Your task to perform on an android device: turn on translation in the chrome app Image 0: 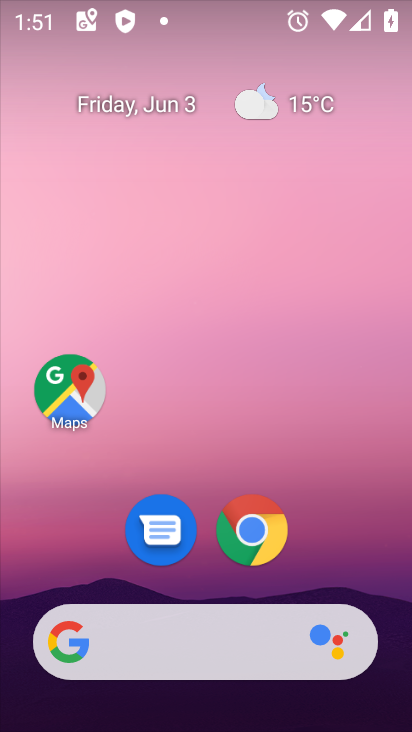
Step 0: click (233, 530)
Your task to perform on an android device: turn on translation in the chrome app Image 1: 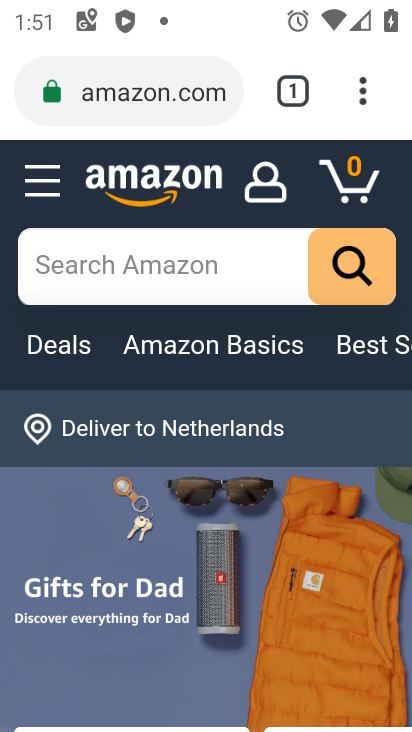
Step 1: drag from (361, 85) to (279, 566)
Your task to perform on an android device: turn on translation in the chrome app Image 2: 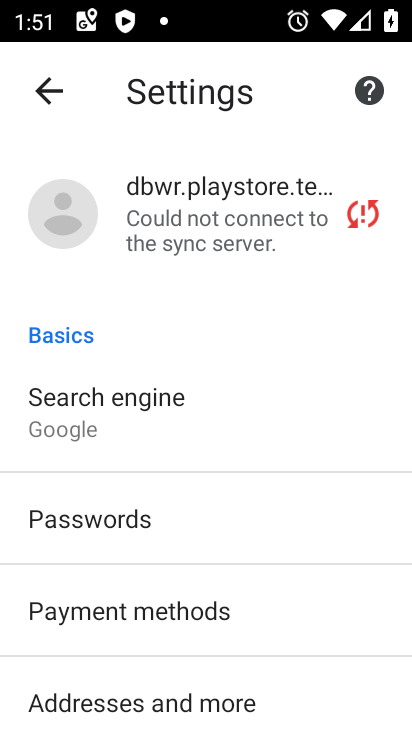
Step 2: drag from (320, 629) to (317, 114)
Your task to perform on an android device: turn on translation in the chrome app Image 3: 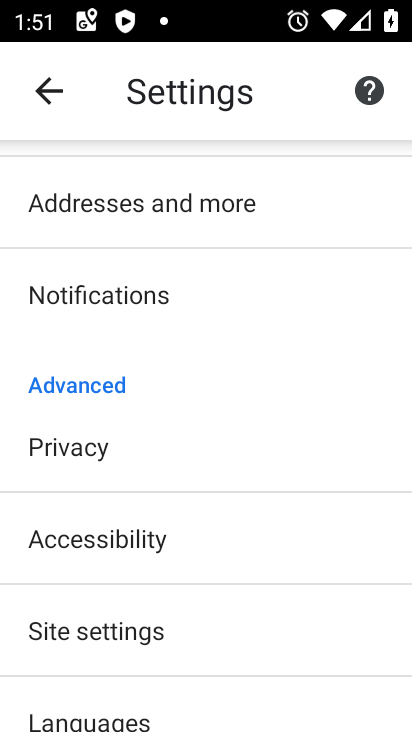
Step 3: drag from (308, 417) to (315, 160)
Your task to perform on an android device: turn on translation in the chrome app Image 4: 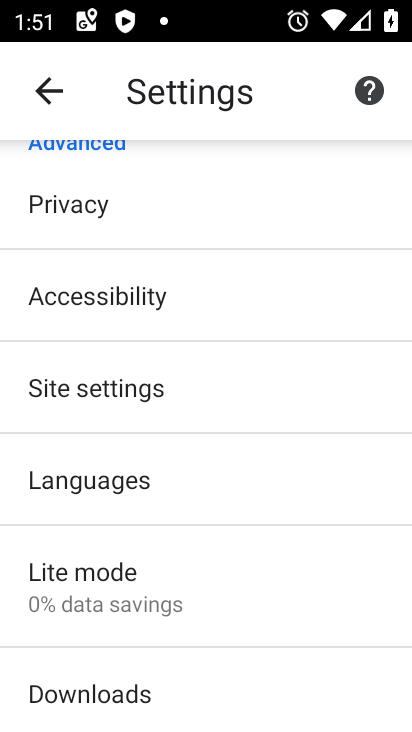
Step 4: click (162, 473)
Your task to perform on an android device: turn on translation in the chrome app Image 5: 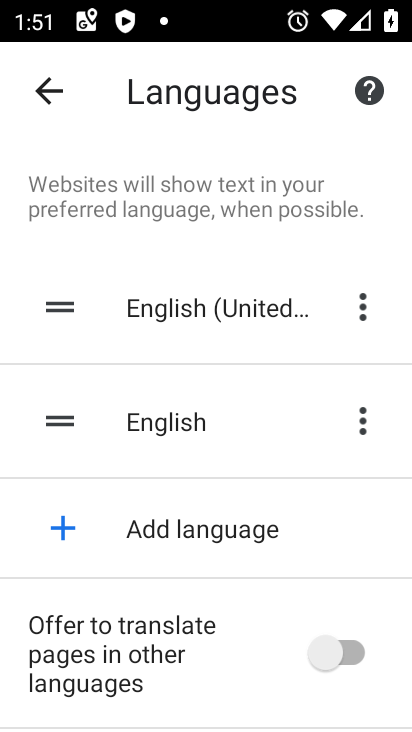
Step 5: click (332, 648)
Your task to perform on an android device: turn on translation in the chrome app Image 6: 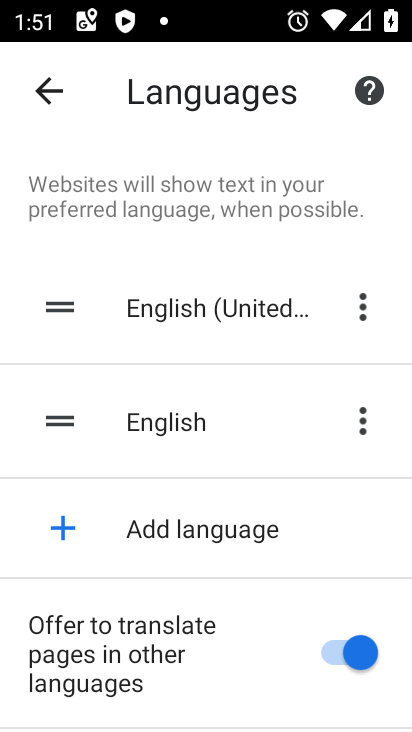
Step 6: task complete